Your task to perform on an android device: Turn off the flashlight Image 0: 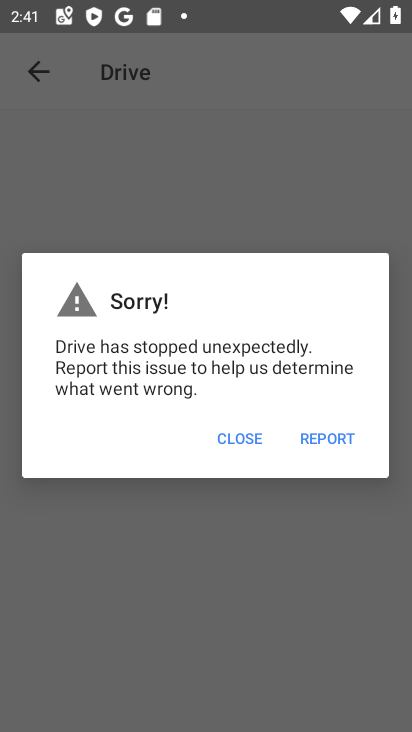
Step 0: press home button
Your task to perform on an android device: Turn off the flashlight Image 1: 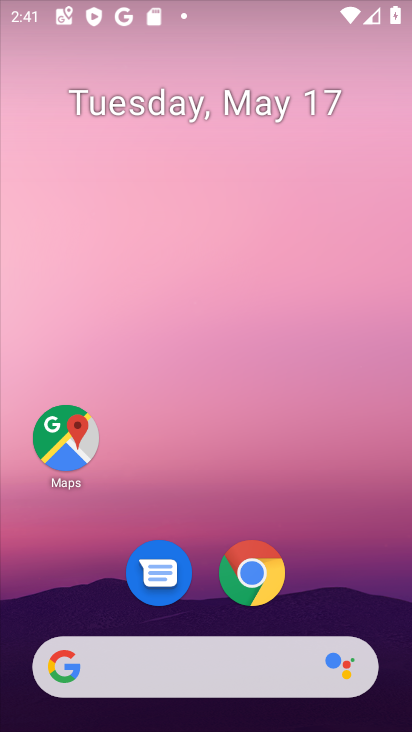
Step 1: drag from (407, 591) to (314, 161)
Your task to perform on an android device: Turn off the flashlight Image 2: 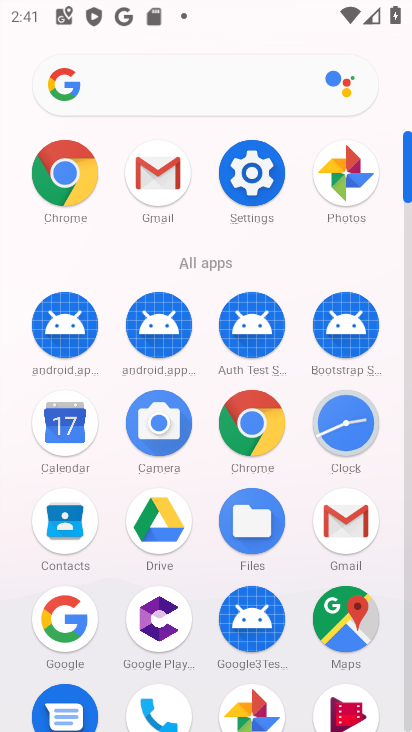
Step 2: click (244, 180)
Your task to perform on an android device: Turn off the flashlight Image 3: 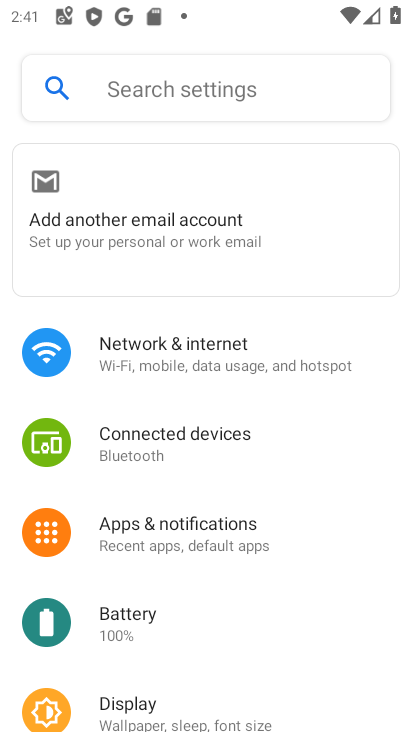
Step 3: click (148, 103)
Your task to perform on an android device: Turn off the flashlight Image 4: 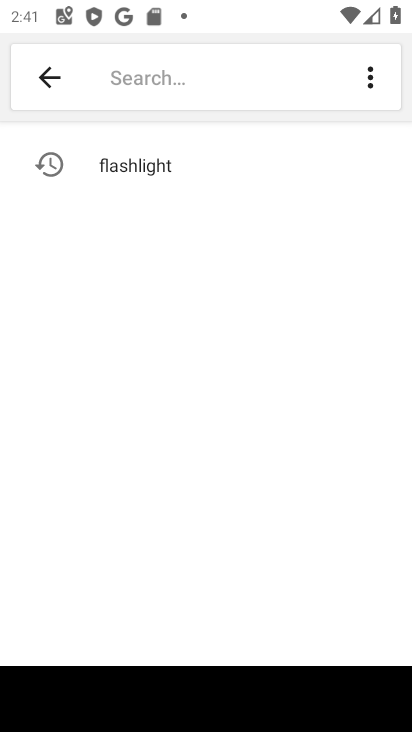
Step 4: type "flashlight"
Your task to perform on an android device: Turn off the flashlight Image 5: 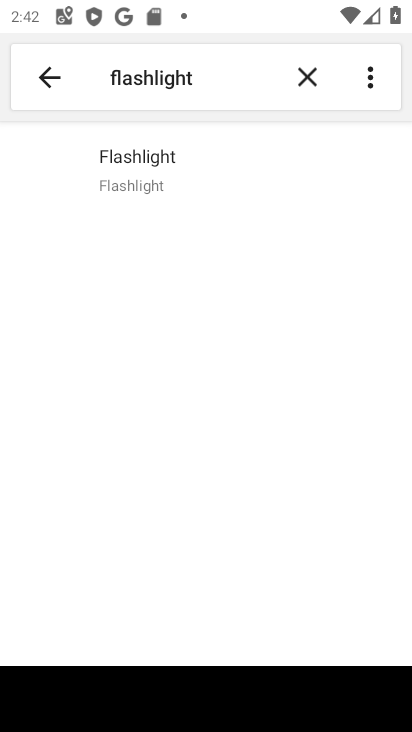
Step 5: task complete